Your task to perform on an android device: Find coffee shops on Maps Image 0: 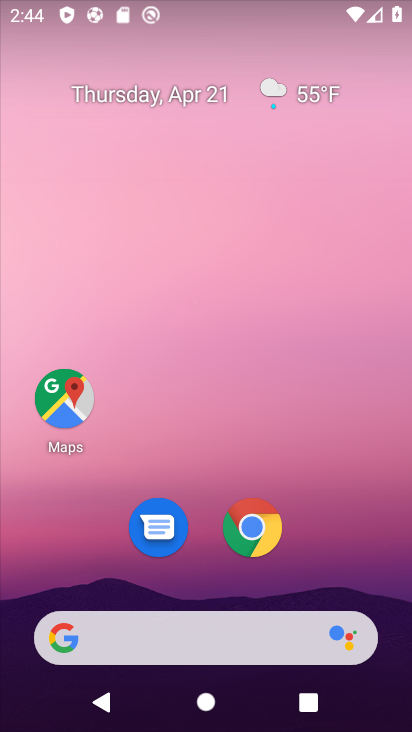
Step 0: drag from (358, 583) to (308, 250)
Your task to perform on an android device: Find coffee shops on Maps Image 1: 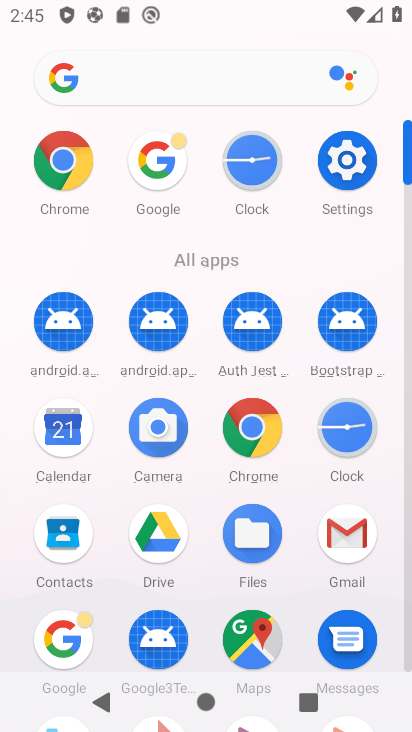
Step 1: click (263, 629)
Your task to perform on an android device: Find coffee shops on Maps Image 2: 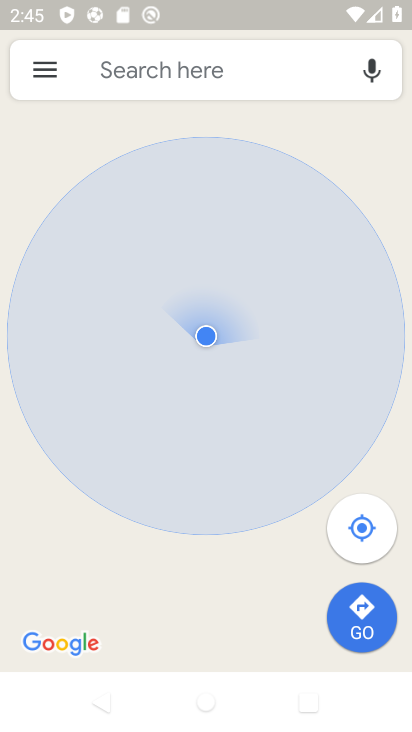
Step 2: click (190, 65)
Your task to perform on an android device: Find coffee shops on Maps Image 3: 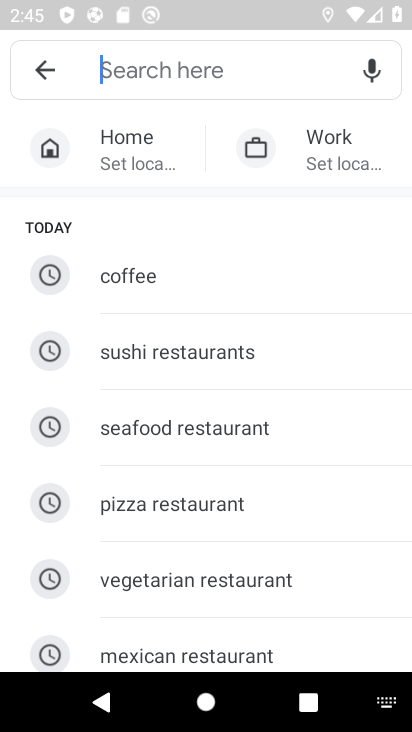
Step 3: type "coffee shops"
Your task to perform on an android device: Find coffee shops on Maps Image 4: 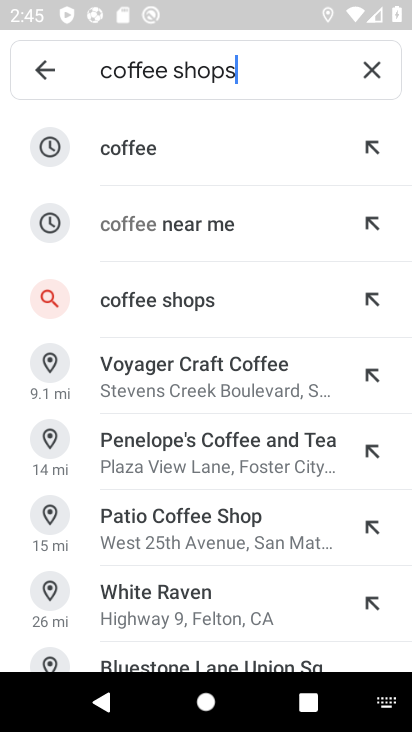
Step 4: click (214, 298)
Your task to perform on an android device: Find coffee shops on Maps Image 5: 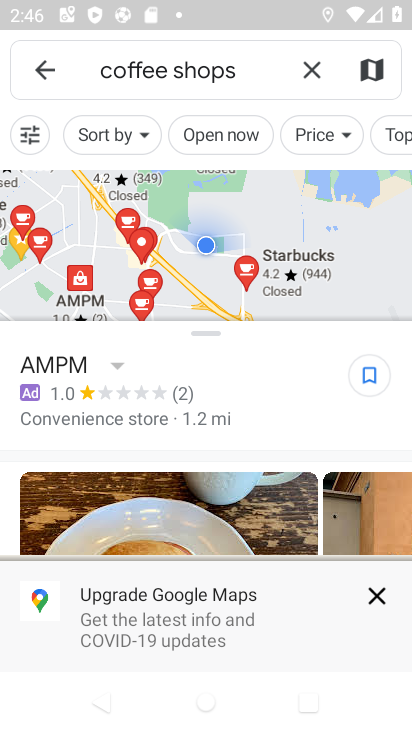
Step 5: task complete